Your task to perform on an android device: Clear the cart on amazon.com. Search for logitech g910 on amazon.com, select the first entry, add it to the cart, then select checkout. Image 0: 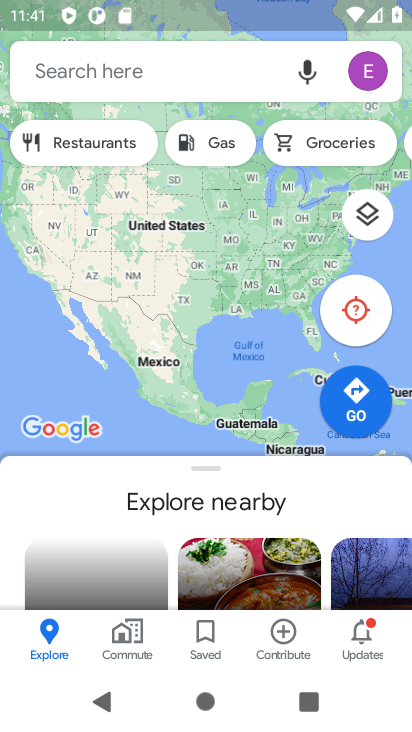
Step 0: press home button
Your task to perform on an android device: Clear the cart on amazon.com. Search for logitech g910 on amazon.com, select the first entry, add it to the cart, then select checkout. Image 1: 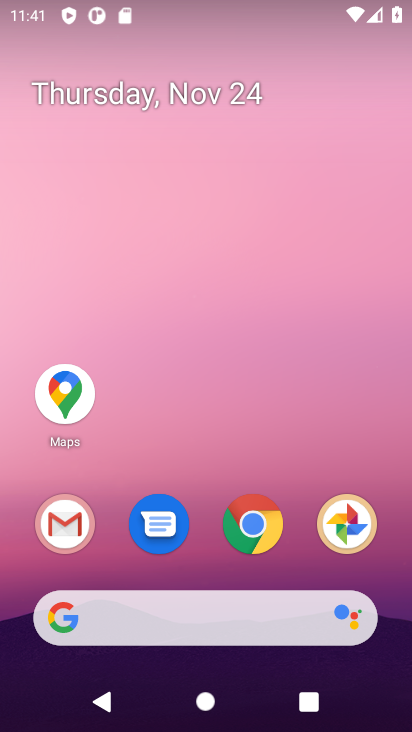
Step 1: click (254, 527)
Your task to perform on an android device: Clear the cart on amazon.com. Search for logitech g910 on amazon.com, select the first entry, add it to the cart, then select checkout. Image 2: 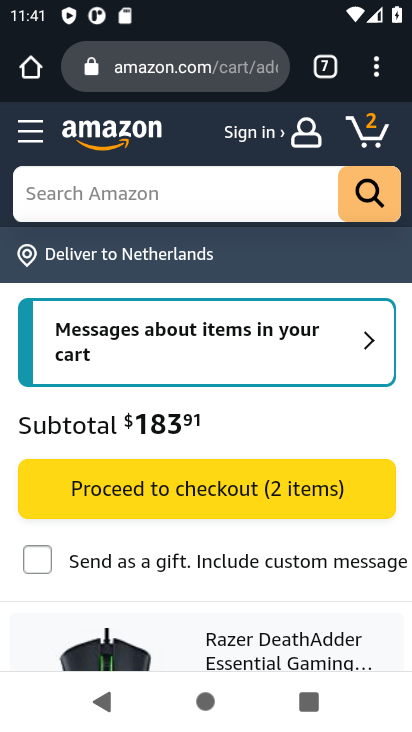
Step 2: drag from (265, 413) to (269, 140)
Your task to perform on an android device: Clear the cart on amazon.com. Search for logitech g910 on amazon.com, select the first entry, add it to the cart, then select checkout. Image 3: 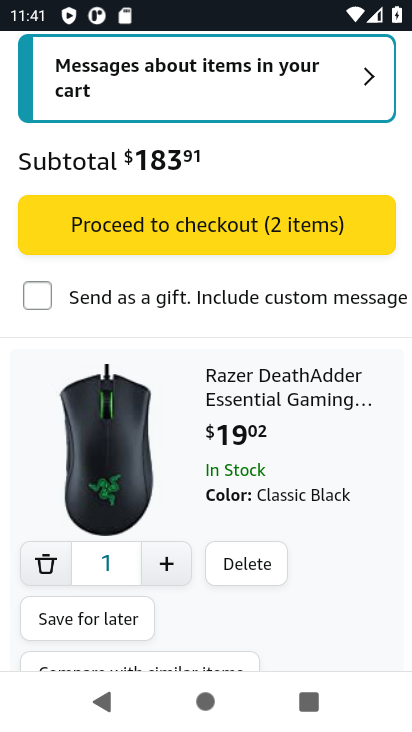
Step 3: click (238, 566)
Your task to perform on an android device: Clear the cart on amazon.com. Search for logitech g910 on amazon.com, select the first entry, add it to the cart, then select checkout. Image 4: 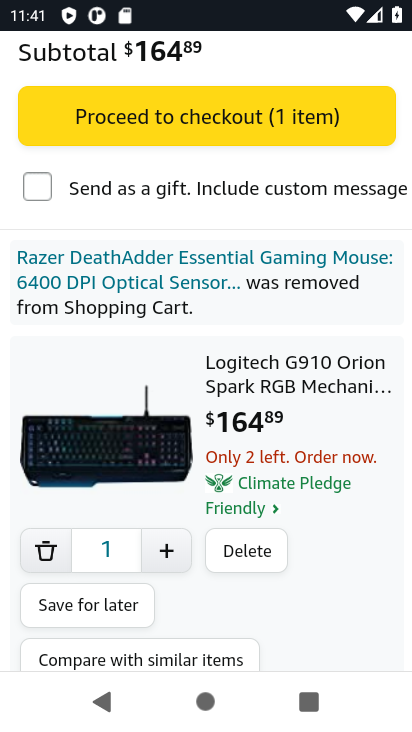
Step 4: click (268, 550)
Your task to perform on an android device: Clear the cart on amazon.com. Search for logitech g910 on amazon.com, select the first entry, add it to the cart, then select checkout. Image 5: 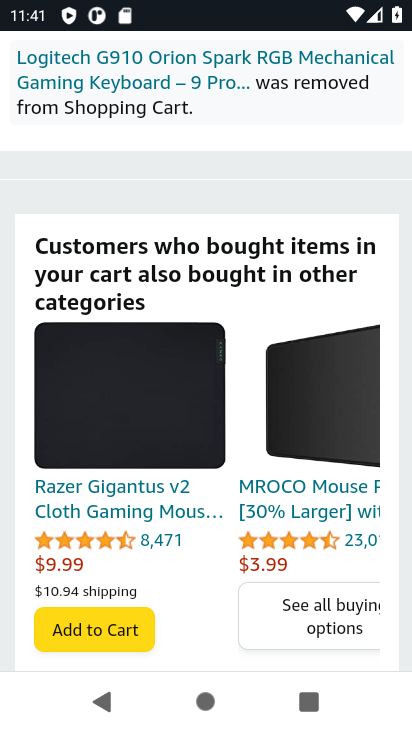
Step 5: drag from (238, 306) to (200, 572)
Your task to perform on an android device: Clear the cart on amazon.com. Search for logitech g910 on amazon.com, select the first entry, add it to the cart, then select checkout. Image 6: 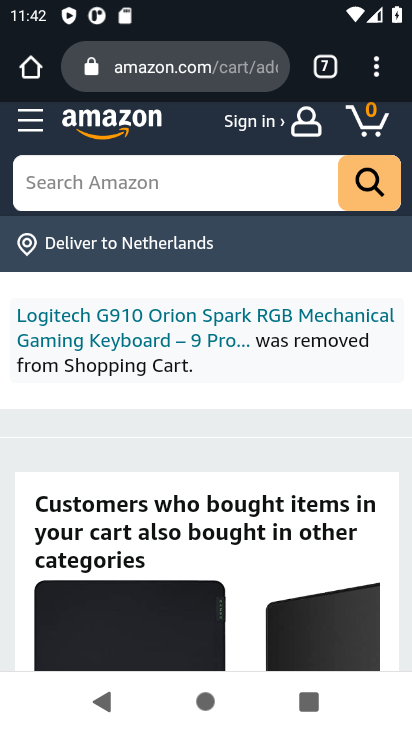
Step 6: click (75, 190)
Your task to perform on an android device: Clear the cart on amazon.com. Search for logitech g910 on amazon.com, select the first entry, add it to the cart, then select checkout. Image 7: 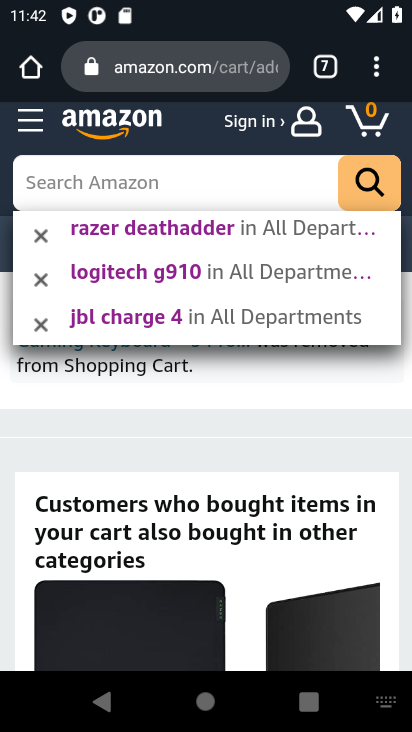
Step 7: type "logitech g910 "
Your task to perform on an android device: Clear the cart on amazon.com. Search for logitech g910 on amazon.com, select the first entry, add it to the cart, then select checkout. Image 8: 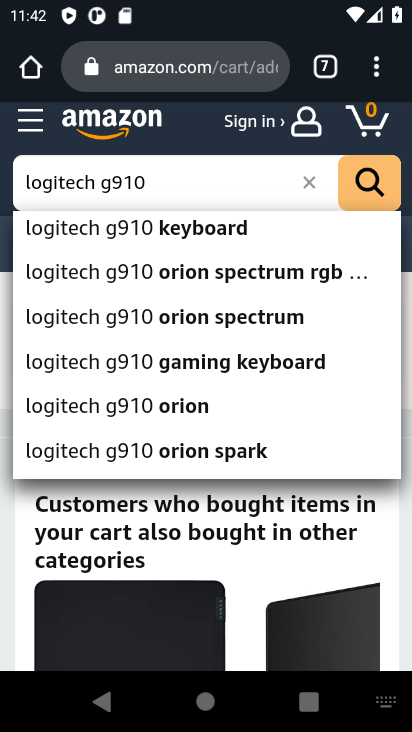
Step 8: click (371, 179)
Your task to perform on an android device: Clear the cart on amazon.com. Search for logitech g910 on amazon.com, select the first entry, add it to the cart, then select checkout. Image 9: 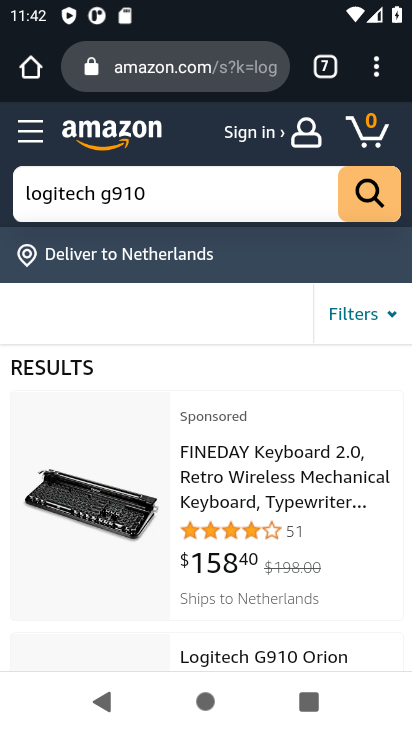
Step 9: task complete